Your task to perform on an android device: Show me the alarms in the clock app Image 0: 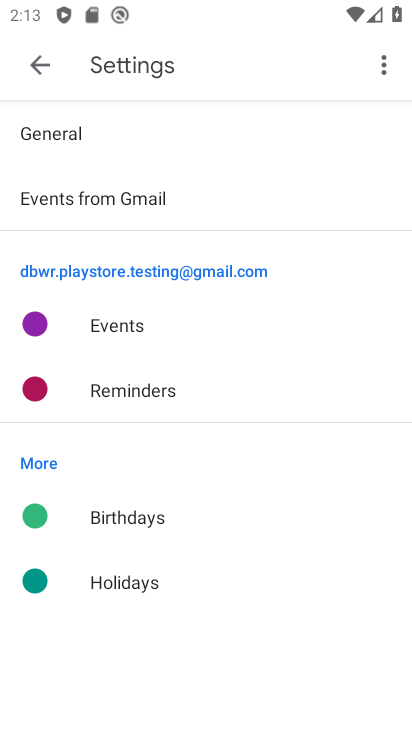
Step 0: press home button
Your task to perform on an android device: Show me the alarms in the clock app Image 1: 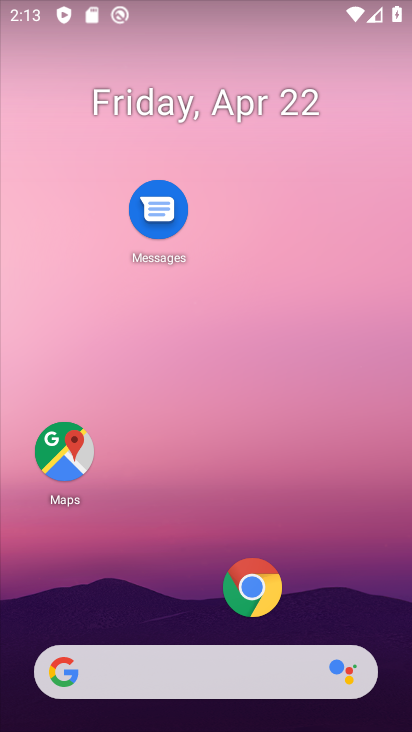
Step 1: drag from (194, 520) to (224, 60)
Your task to perform on an android device: Show me the alarms in the clock app Image 2: 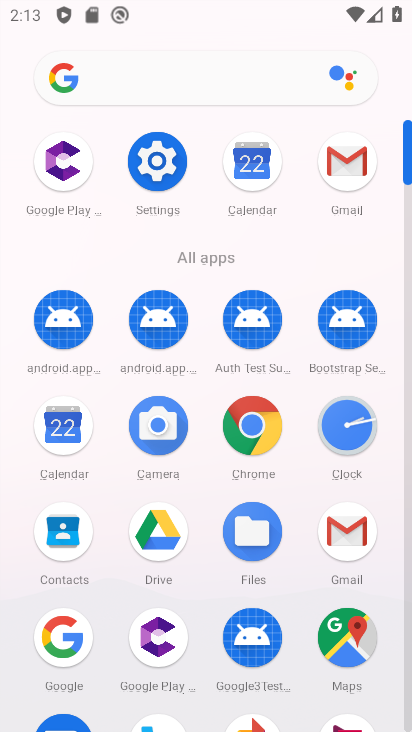
Step 2: click (337, 424)
Your task to perform on an android device: Show me the alarms in the clock app Image 3: 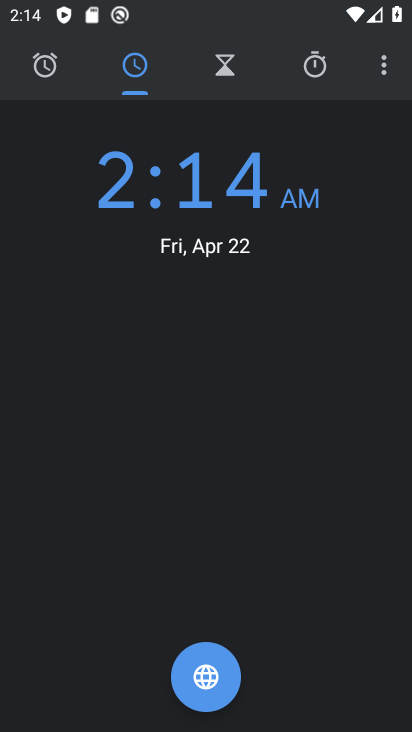
Step 3: click (56, 64)
Your task to perform on an android device: Show me the alarms in the clock app Image 4: 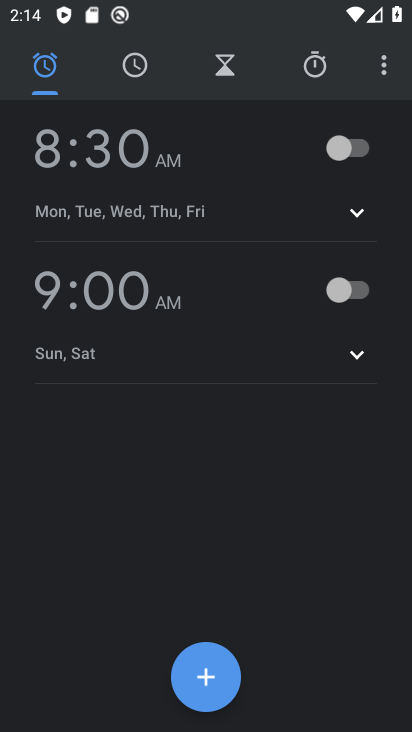
Step 4: task complete